Your task to perform on an android device: move a message to another label in the gmail app Image 0: 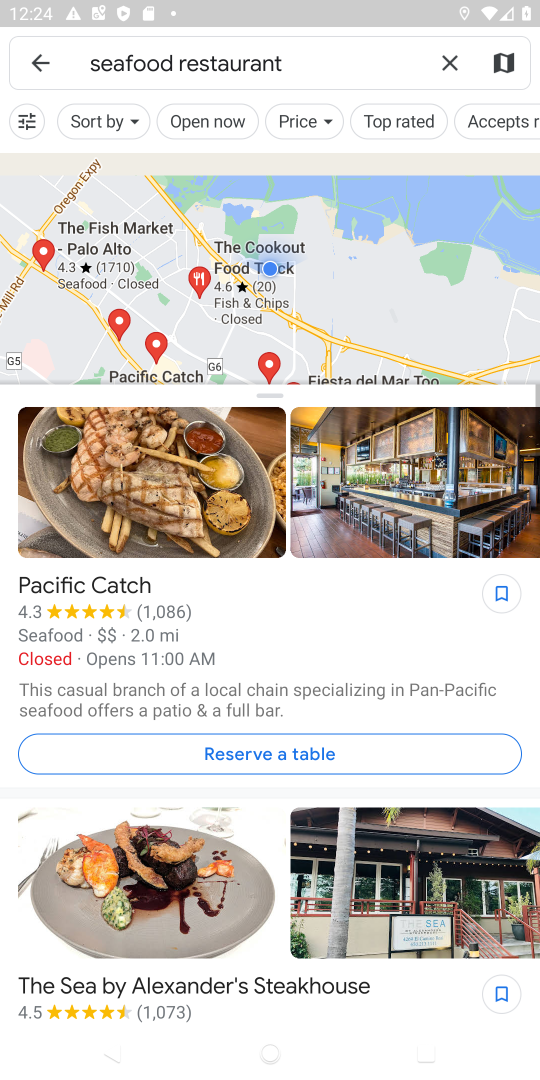
Step 0: press back button
Your task to perform on an android device: move a message to another label in the gmail app Image 1: 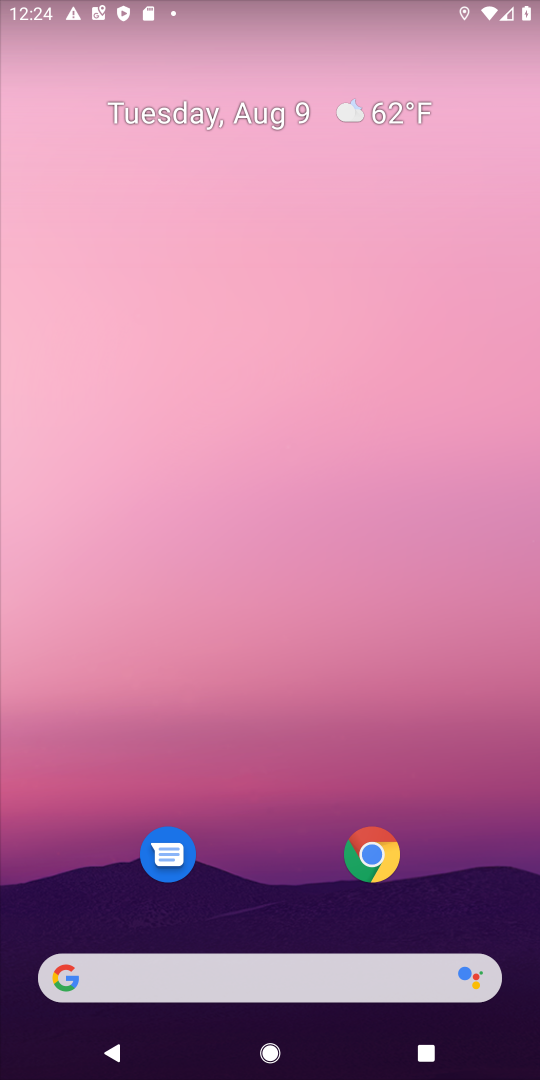
Step 1: press back button
Your task to perform on an android device: move a message to another label in the gmail app Image 2: 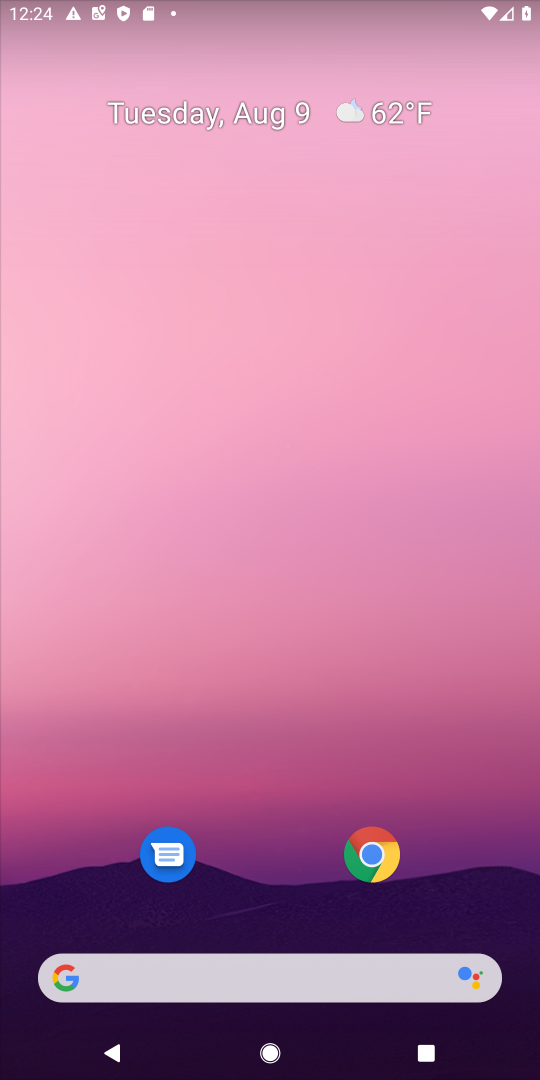
Step 2: click (376, 867)
Your task to perform on an android device: move a message to another label in the gmail app Image 3: 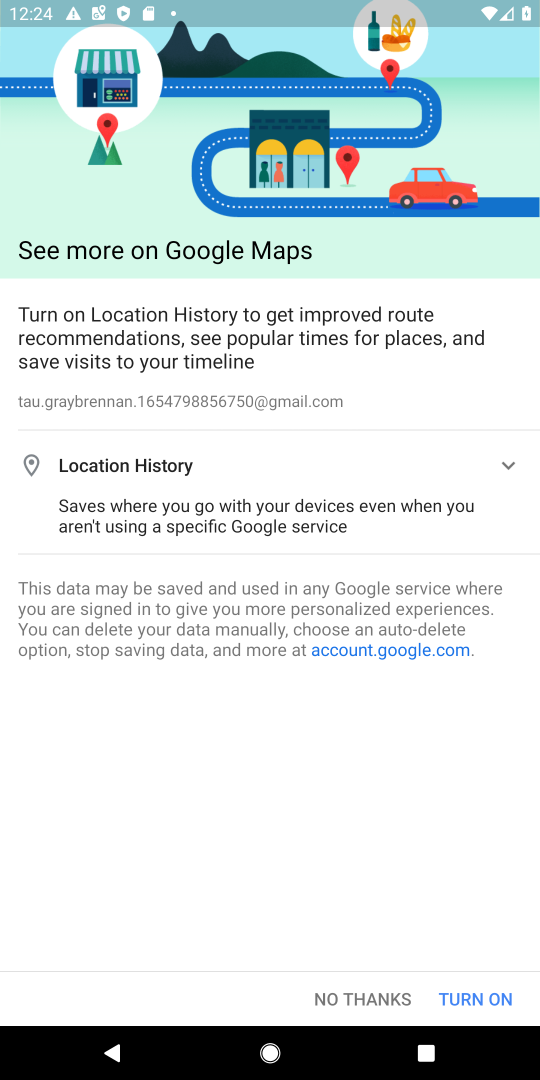
Step 3: press back button
Your task to perform on an android device: move a message to another label in the gmail app Image 4: 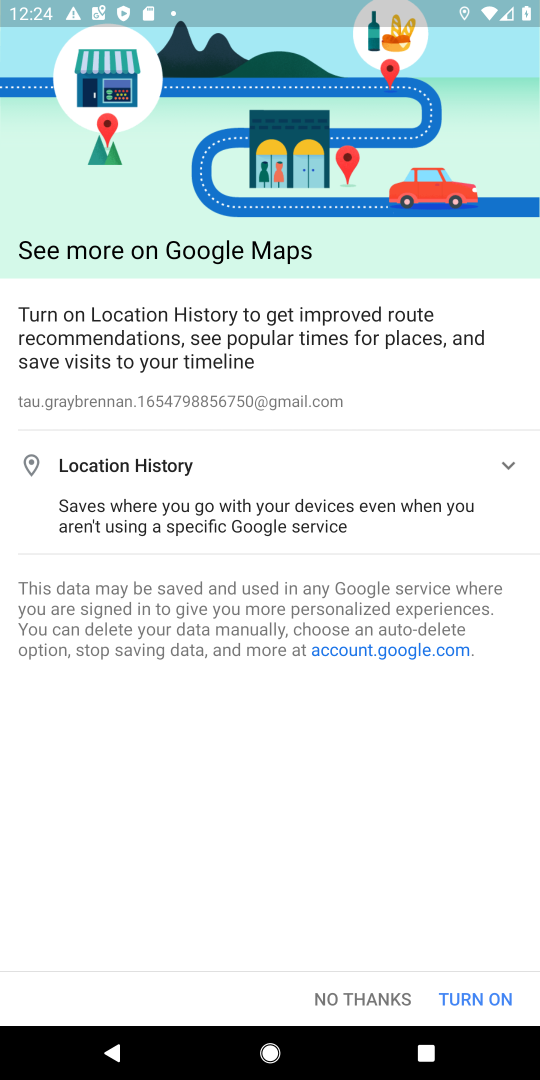
Step 4: press back button
Your task to perform on an android device: move a message to another label in the gmail app Image 5: 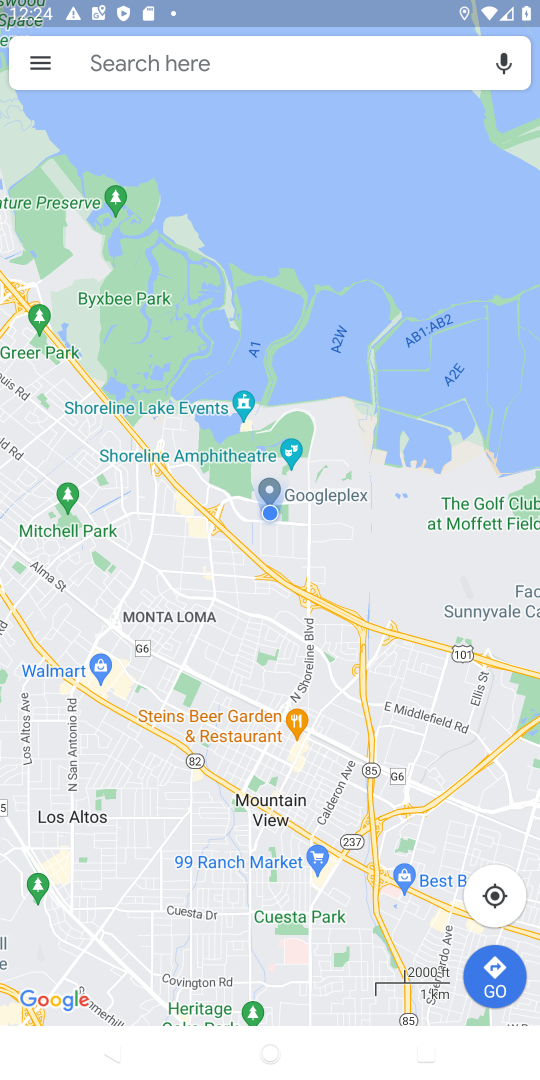
Step 5: press back button
Your task to perform on an android device: move a message to another label in the gmail app Image 6: 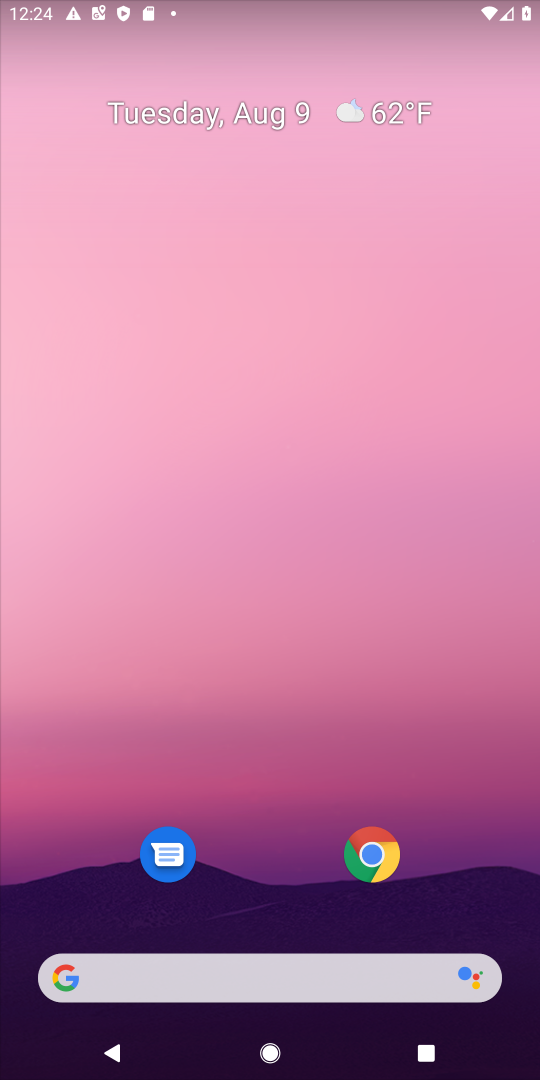
Step 6: press home button
Your task to perform on an android device: move a message to another label in the gmail app Image 7: 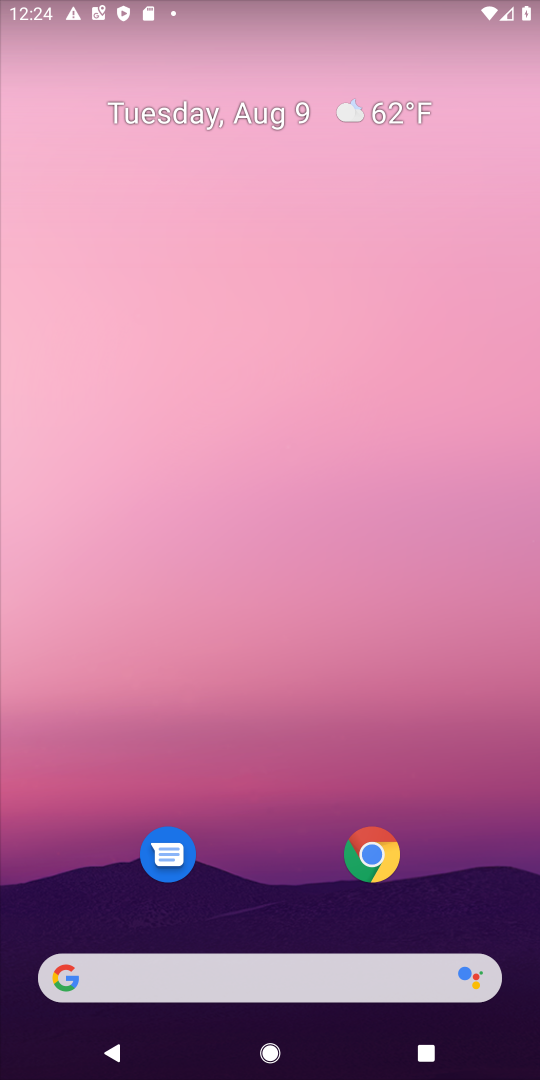
Step 7: drag from (338, 619) to (449, 2)
Your task to perform on an android device: move a message to another label in the gmail app Image 8: 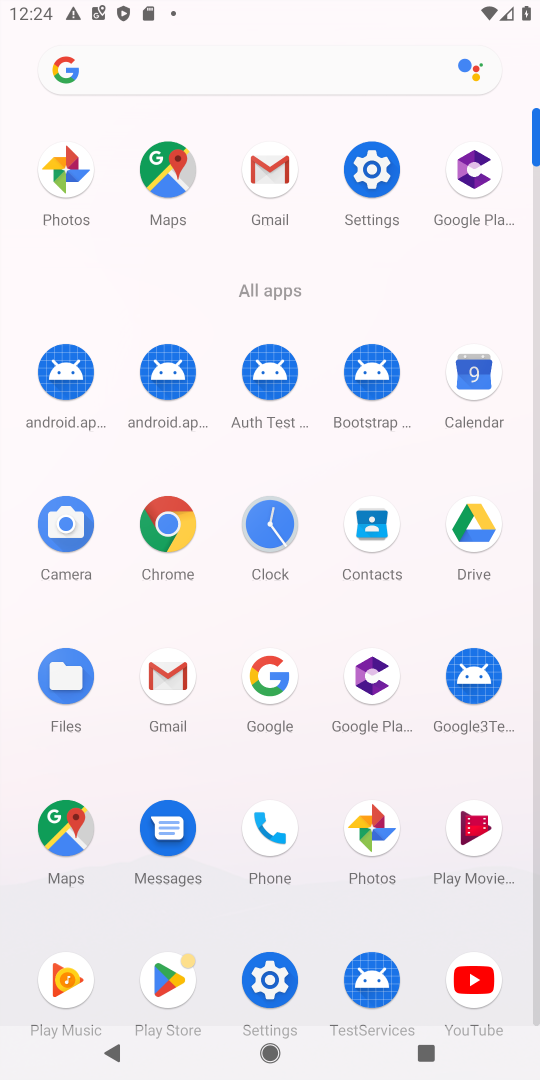
Step 8: click (277, 186)
Your task to perform on an android device: move a message to another label in the gmail app Image 9: 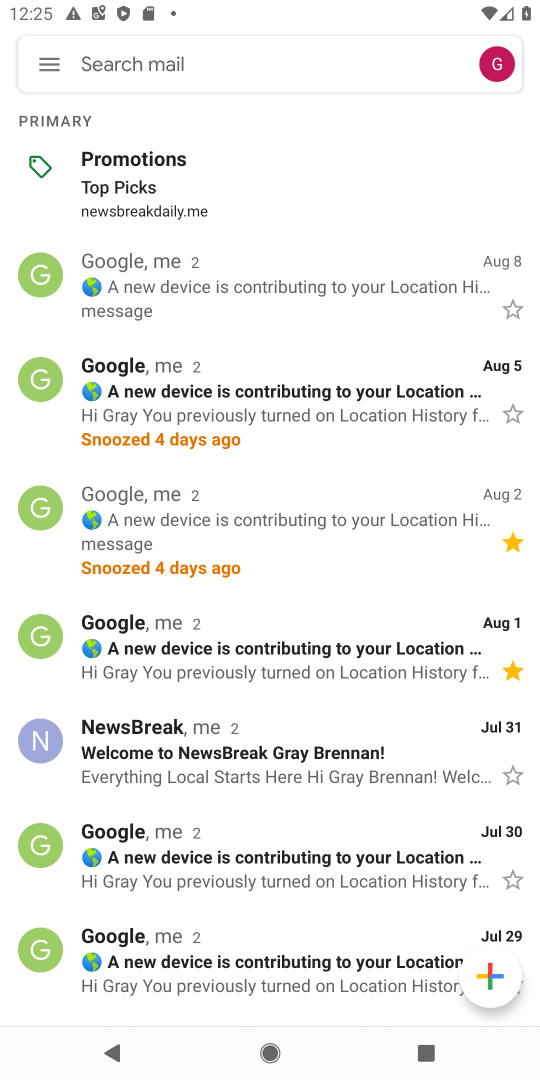
Step 9: click (226, 662)
Your task to perform on an android device: move a message to another label in the gmail app Image 10: 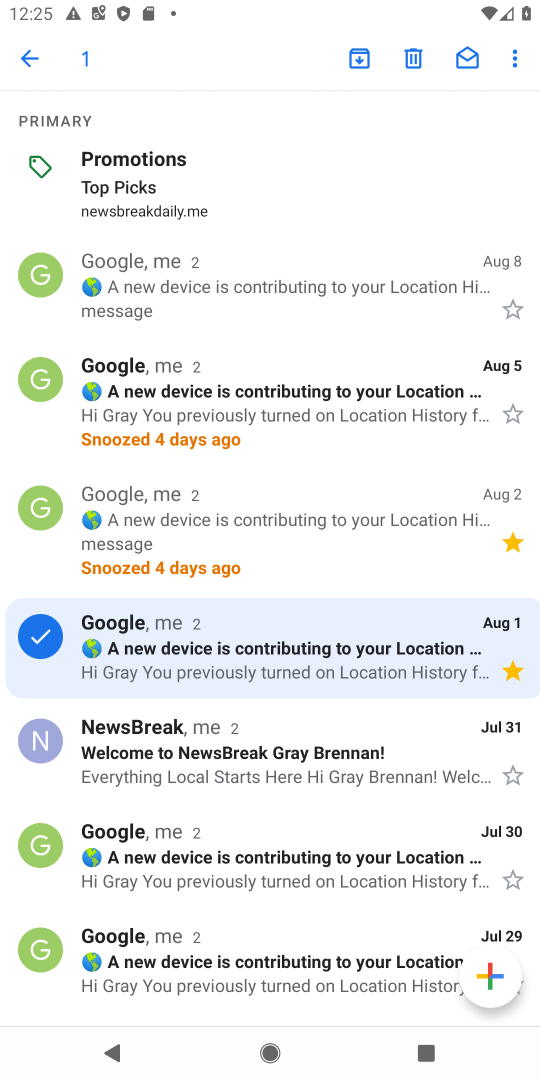
Step 10: click (514, 58)
Your task to perform on an android device: move a message to another label in the gmail app Image 11: 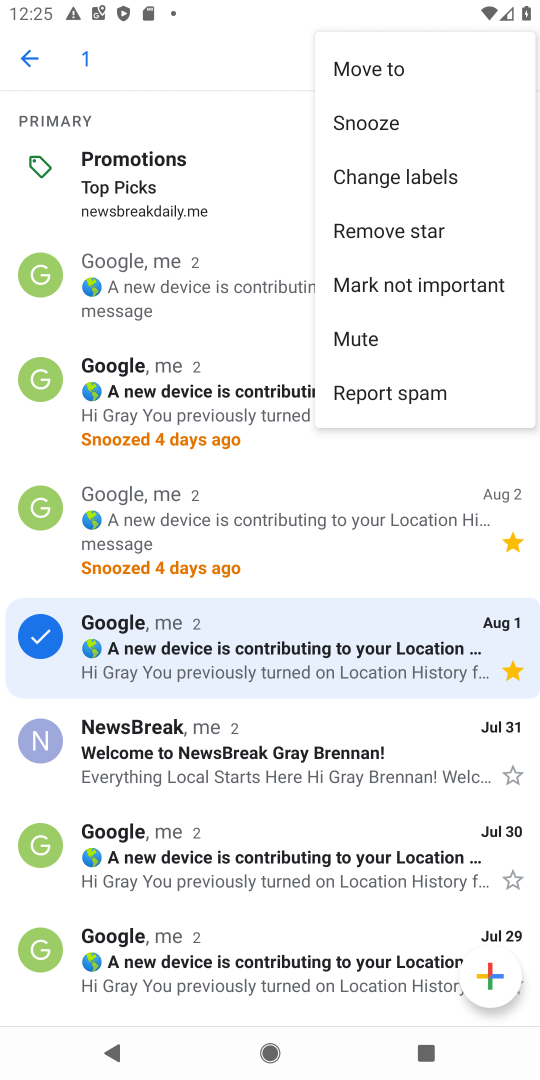
Step 11: click (395, 80)
Your task to perform on an android device: move a message to another label in the gmail app Image 12: 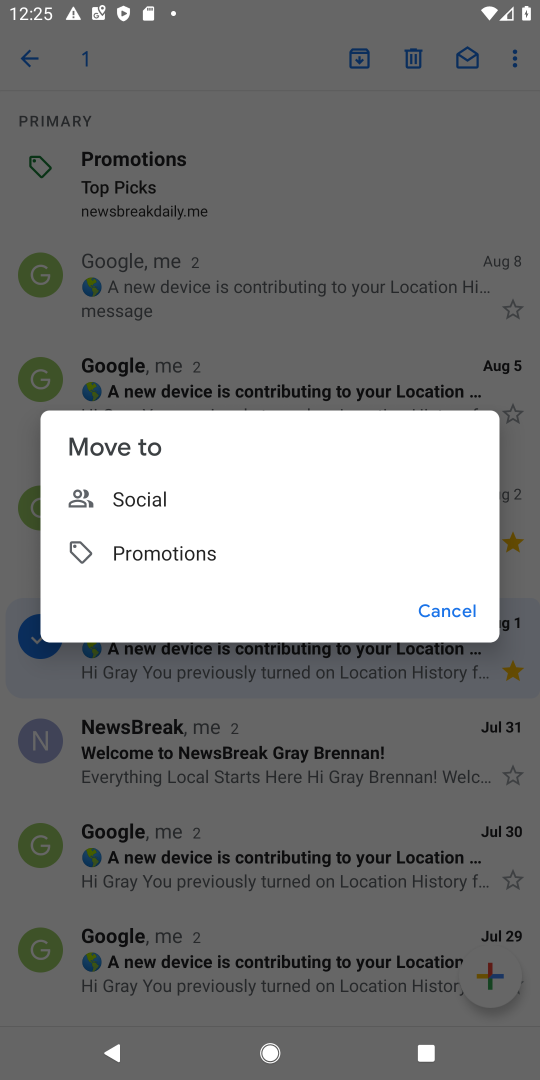
Step 12: click (262, 248)
Your task to perform on an android device: move a message to another label in the gmail app Image 13: 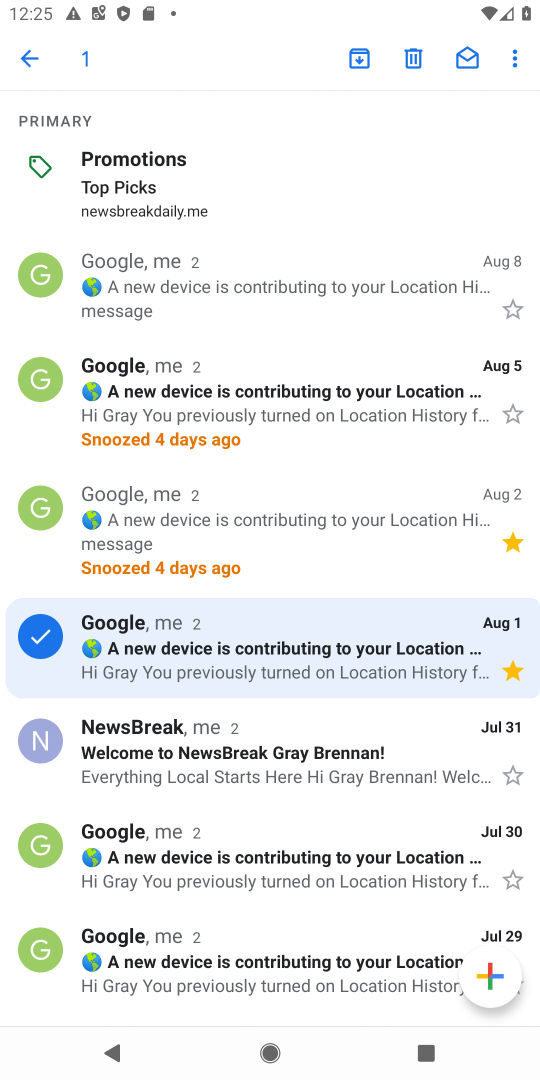
Step 13: click (209, 293)
Your task to perform on an android device: move a message to another label in the gmail app Image 14: 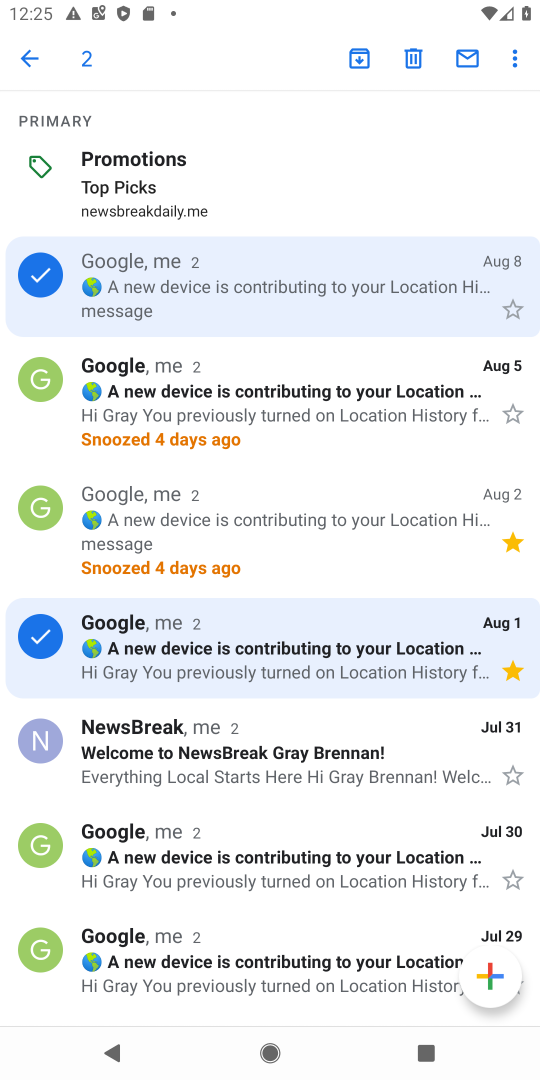
Step 14: click (502, 47)
Your task to perform on an android device: move a message to another label in the gmail app Image 15: 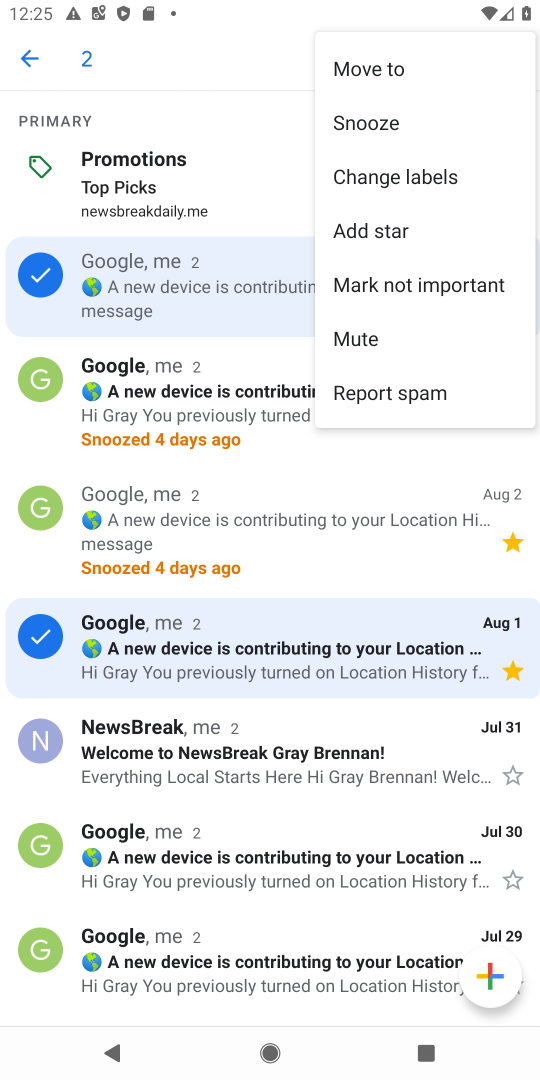
Step 15: click (371, 66)
Your task to perform on an android device: move a message to another label in the gmail app Image 16: 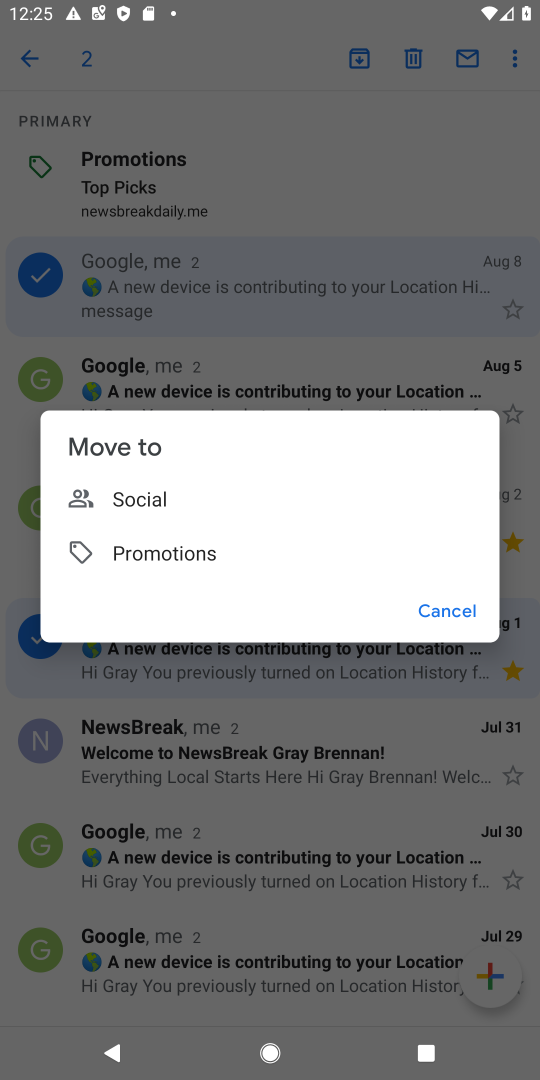
Step 16: click (452, 586)
Your task to perform on an android device: move a message to another label in the gmail app Image 17: 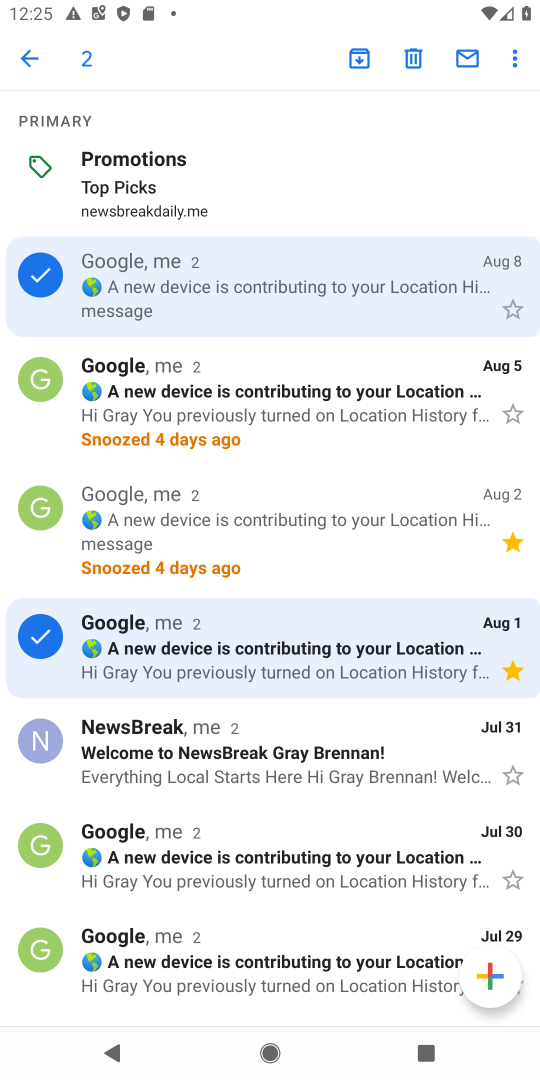
Step 17: click (518, 53)
Your task to perform on an android device: move a message to another label in the gmail app Image 18: 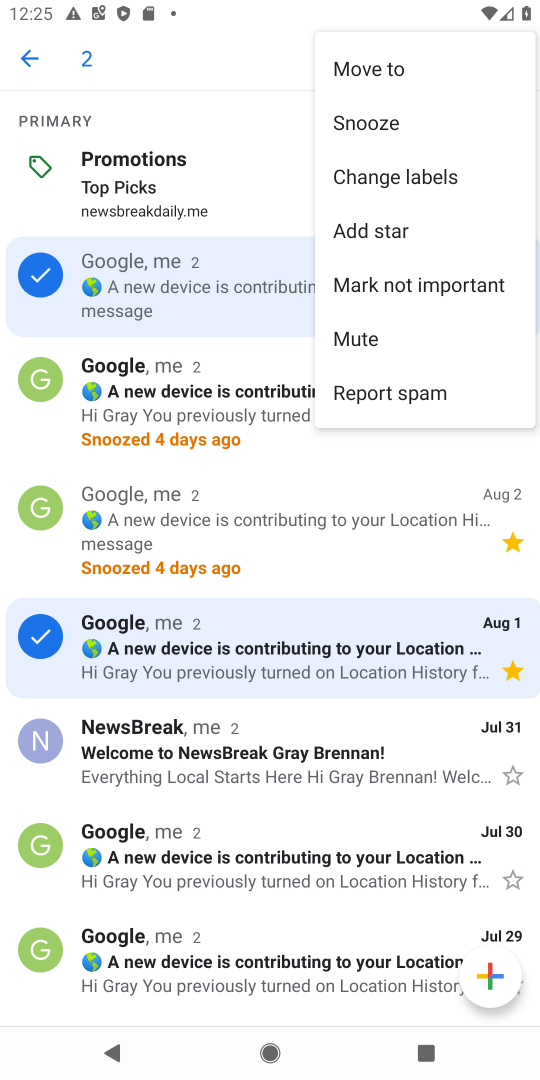
Step 18: click (390, 186)
Your task to perform on an android device: move a message to another label in the gmail app Image 19: 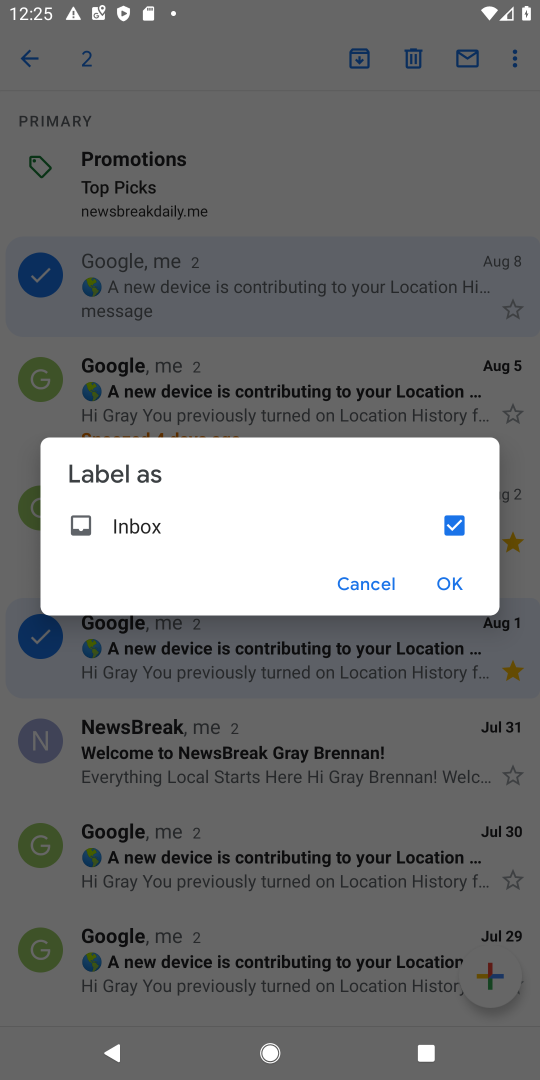
Step 19: click (445, 568)
Your task to perform on an android device: move a message to another label in the gmail app Image 20: 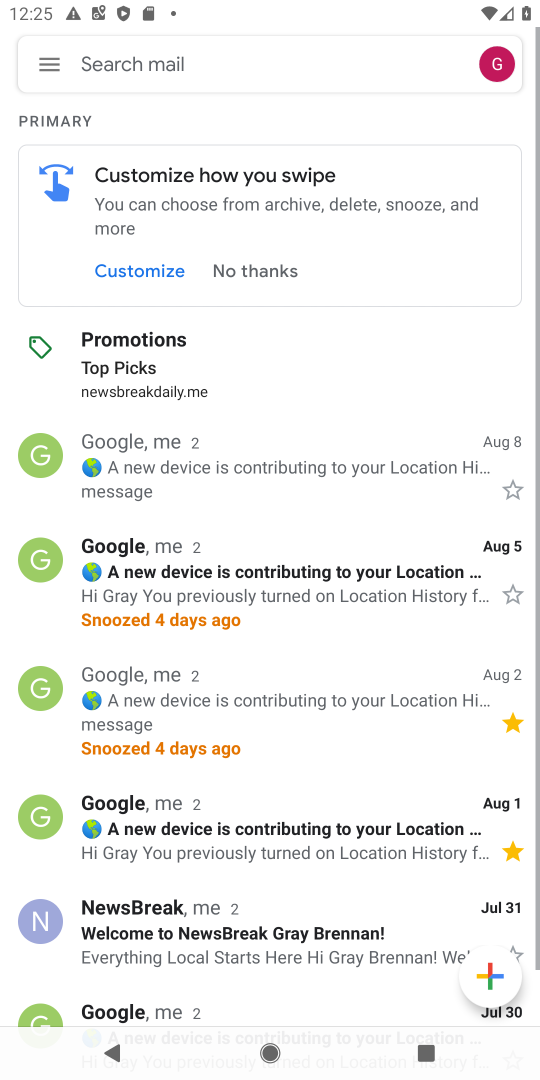
Step 20: task complete